Your task to perform on an android device: star an email in the gmail app Image 0: 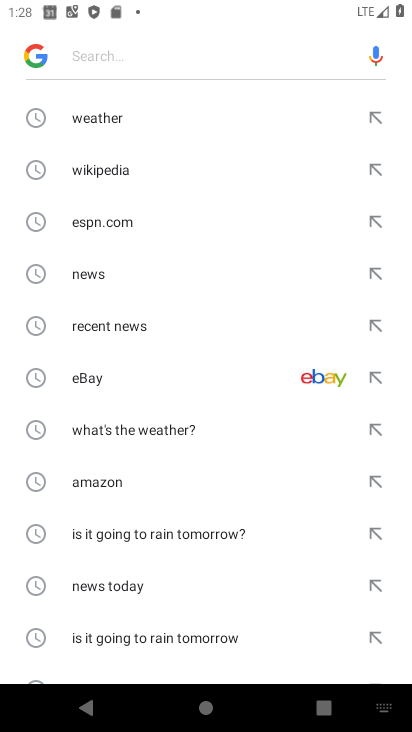
Step 0: press home button
Your task to perform on an android device: star an email in the gmail app Image 1: 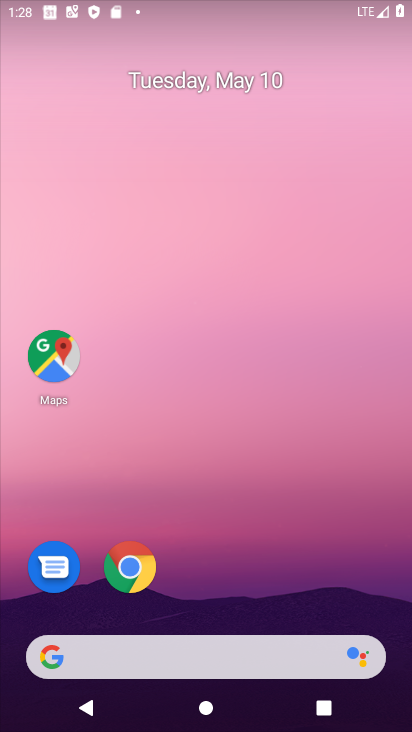
Step 1: drag from (389, 622) to (284, 116)
Your task to perform on an android device: star an email in the gmail app Image 2: 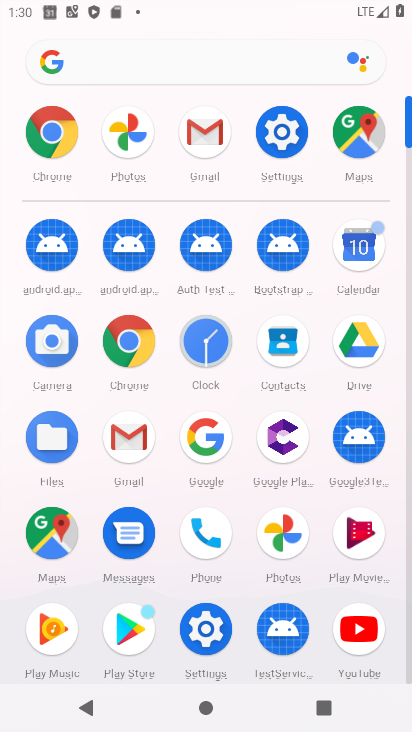
Step 2: click (133, 440)
Your task to perform on an android device: star an email in the gmail app Image 3: 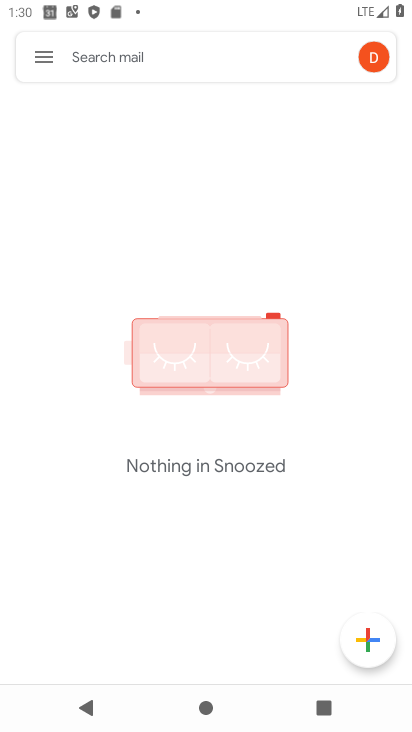
Step 3: click (42, 64)
Your task to perform on an android device: star an email in the gmail app Image 4: 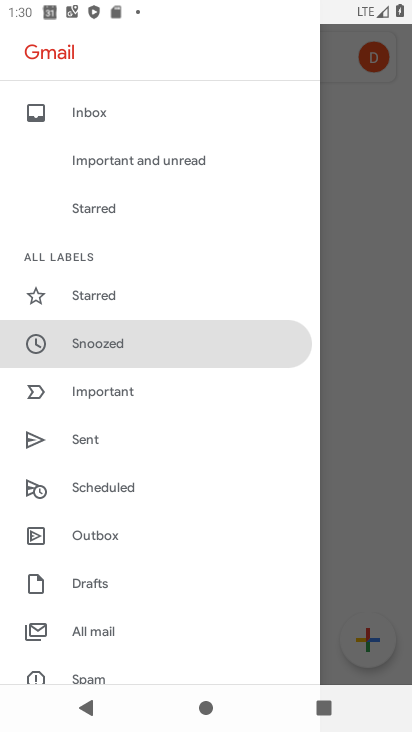
Step 4: click (123, 301)
Your task to perform on an android device: star an email in the gmail app Image 5: 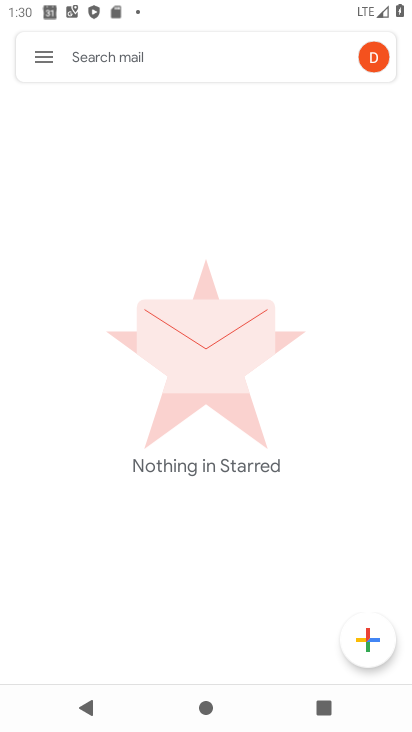
Step 5: task complete